Your task to perform on an android device: Go to location settings Image 0: 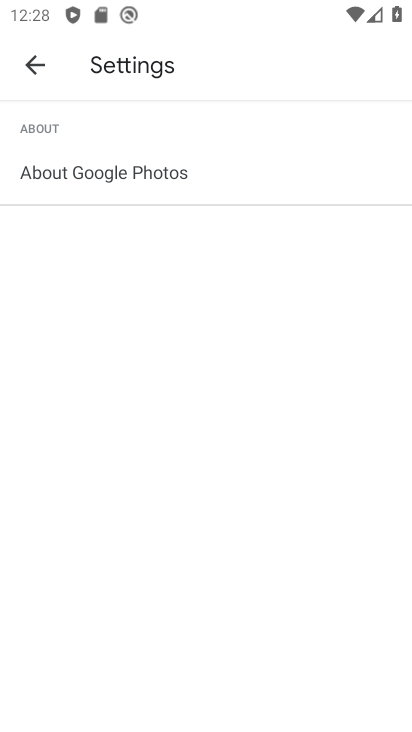
Step 0: press home button
Your task to perform on an android device: Go to location settings Image 1: 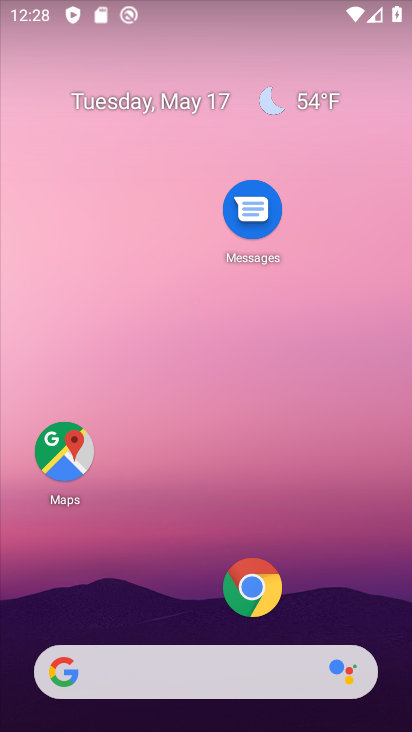
Step 1: drag from (156, 614) to (212, 68)
Your task to perform on an android device: Go to location settings Image 2: 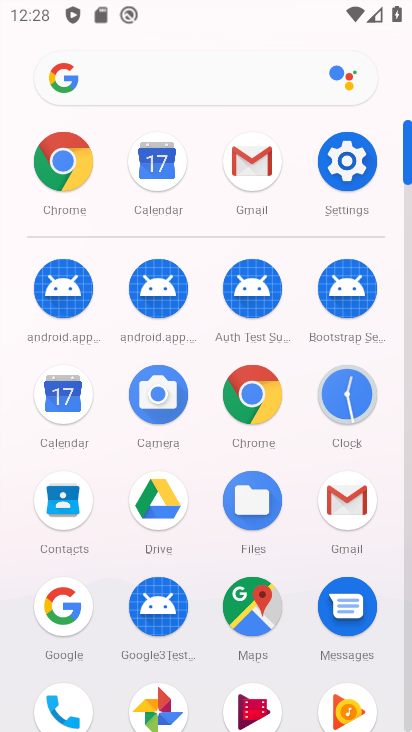
Step 2: click (363, 166)
Your task to perform on an android device: Go to location settings Image 3: 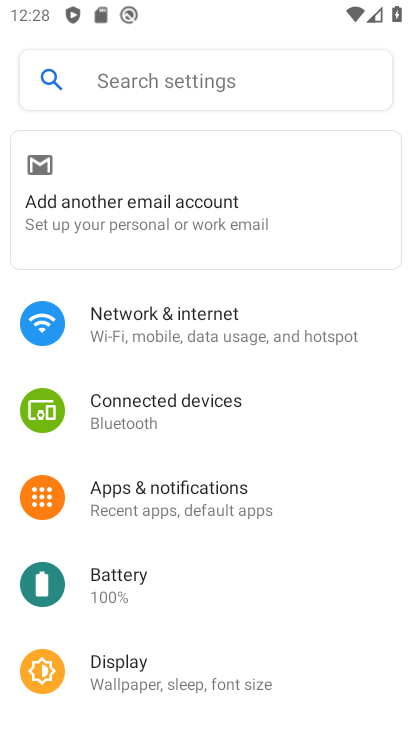
Step 3: drag from (183, 599) to (292, 201)
Your task to perform on an android device: Go to location settings Image 4: 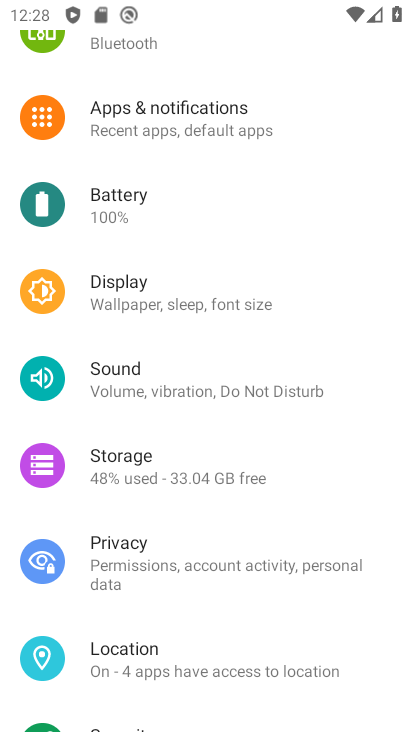
Step 4: click (186, 648)
Your task to perform on an android device: Go to location settings Image 5: 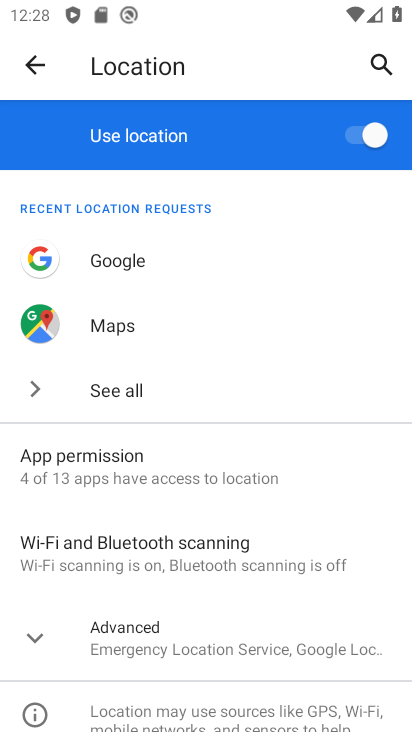
Step 5: task complete